Your task to perform on an android device: set the timer Image 0: 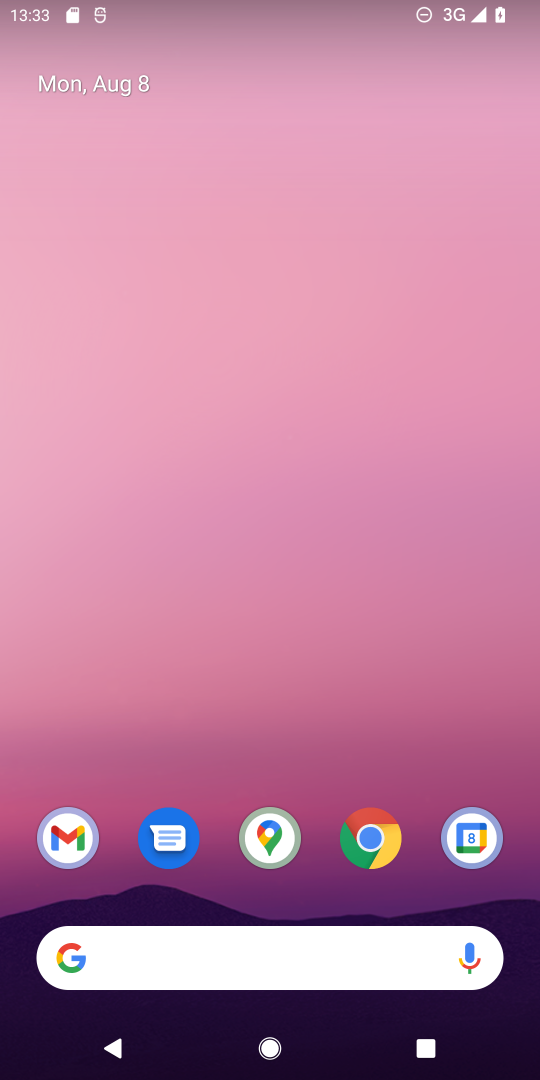
Step 0: press home button
Your task to perform on an android device: set the timer Image 1: 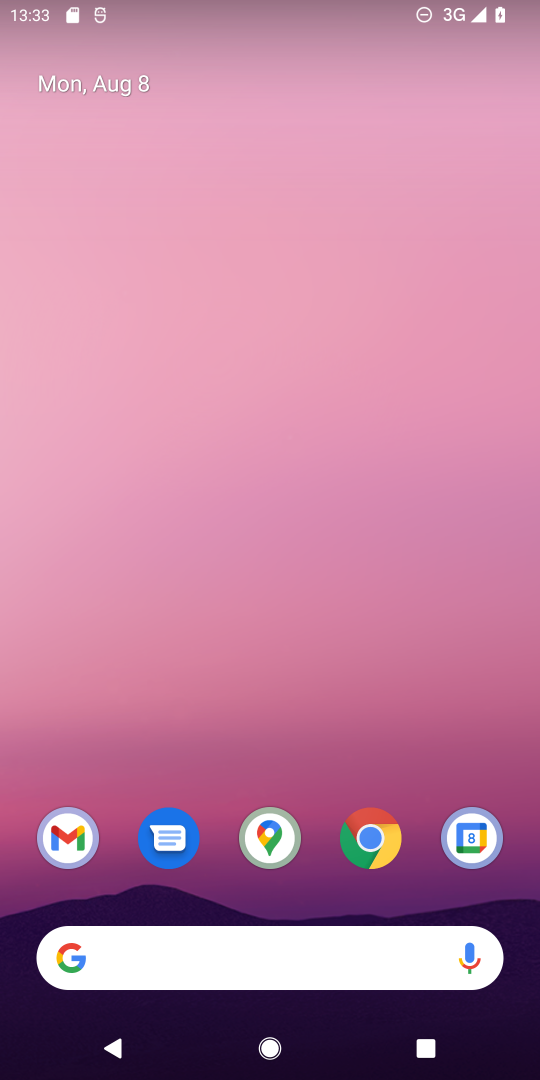
Step 1: drag from (311, 863) to (343, 236)
Your task to perform on an android device: set the timer Image 2: 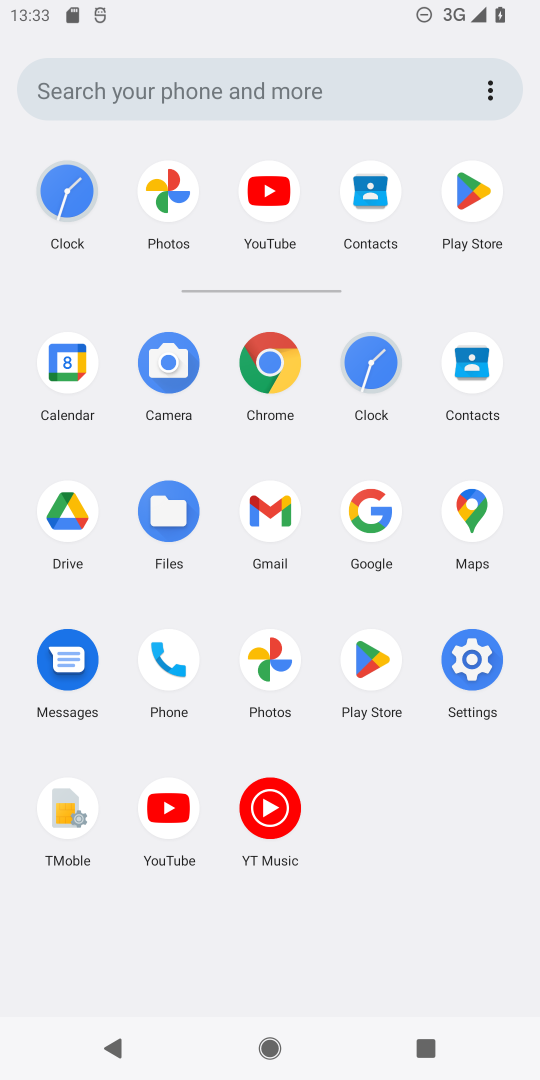
Step 2: click (59, 185)
Your task to perform on an android device: set the timer Image 3: 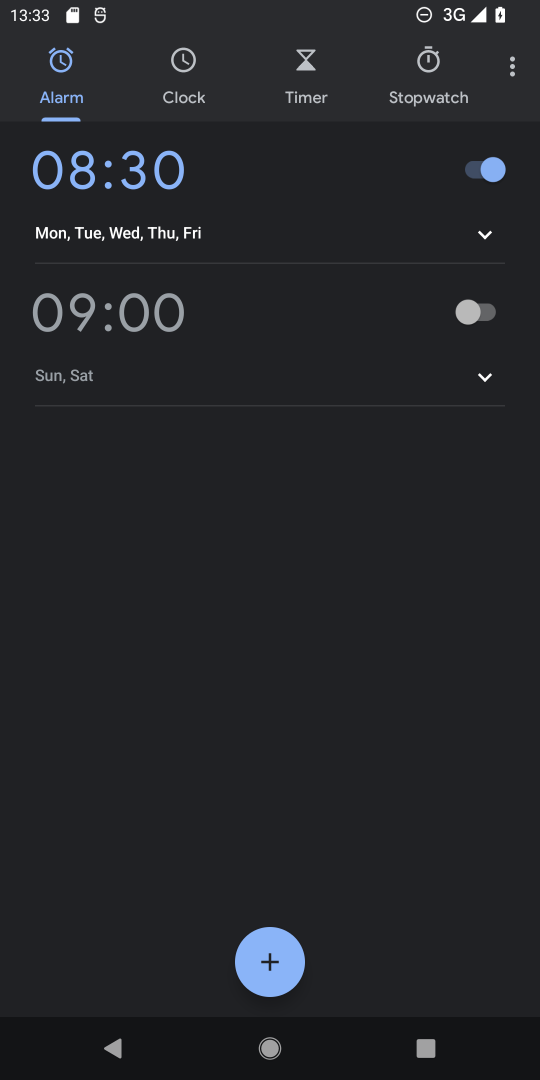
Step 3: click (297, 66)
Your task to perform on an android device: set the timer Image 4: 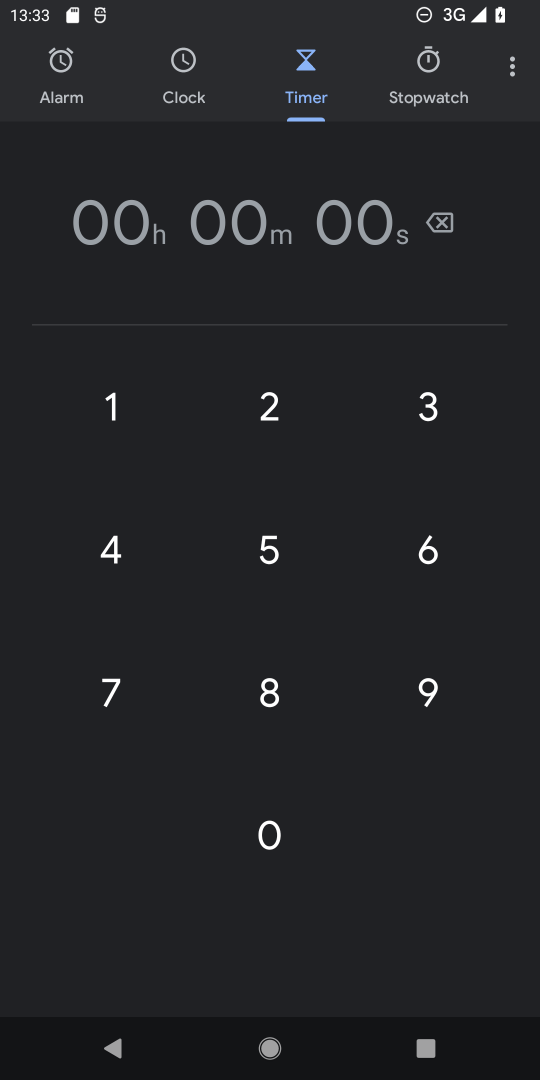
Step 4: click (115, 392)
Your task to perform on an android device: set the timer Image 5: 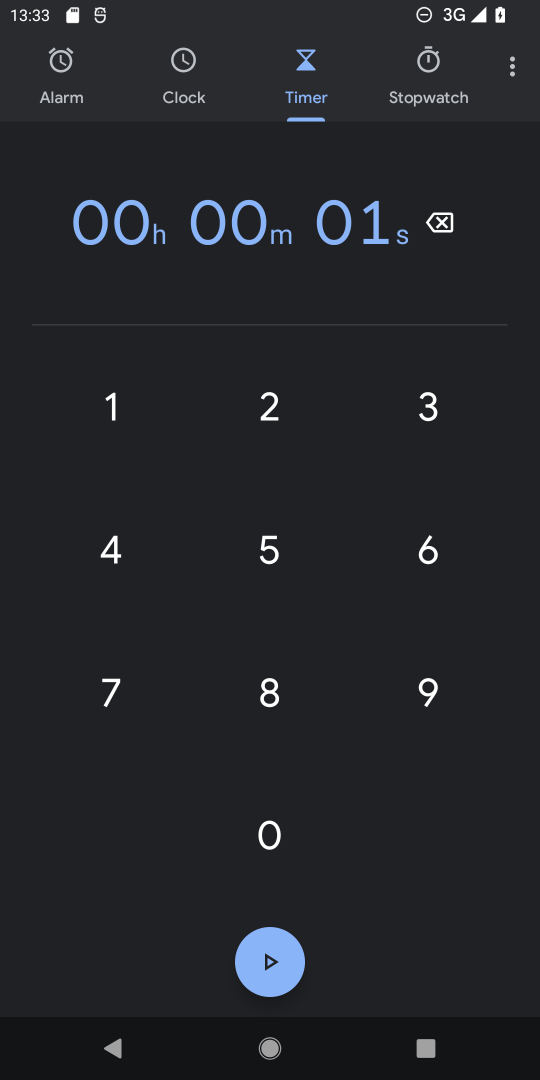
Step 5: click (271, 395)
Your task to perform on an android device: set the timer Image 6: 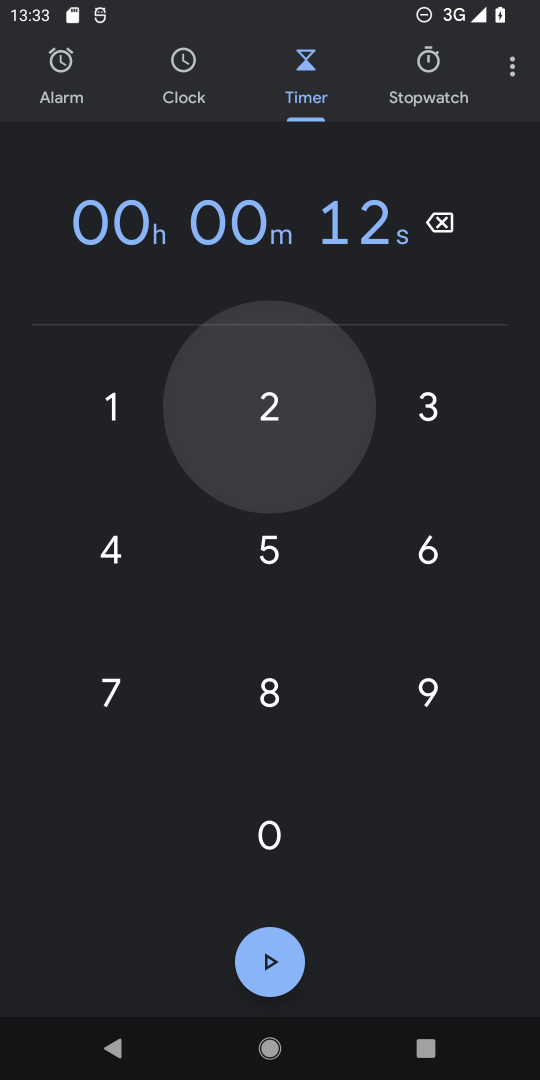
Step 6: click (109, 547)
Your task to perform on an android device: set the timer Image 7: 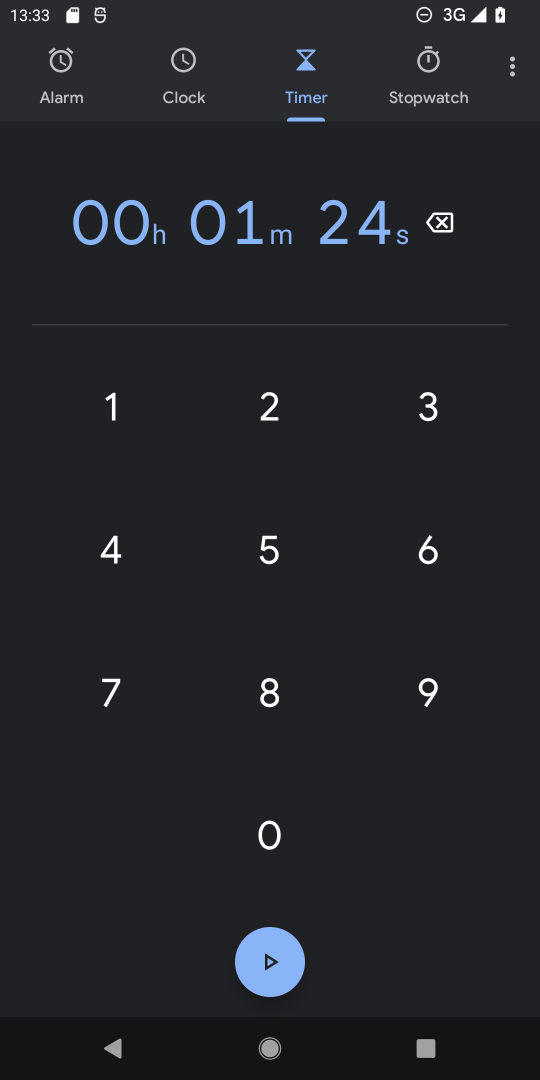
Step 7: click (441, 418)
Your task to perform on an android device: set the timer Image 8: 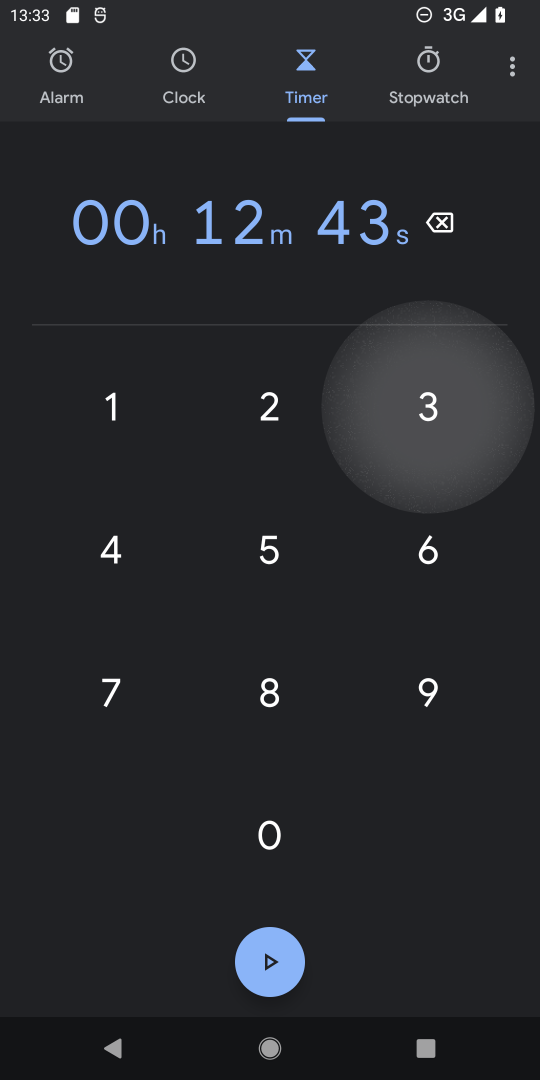
Step 8: click (268, 547)
Your task to perform on an android device: set the timer Image 9: 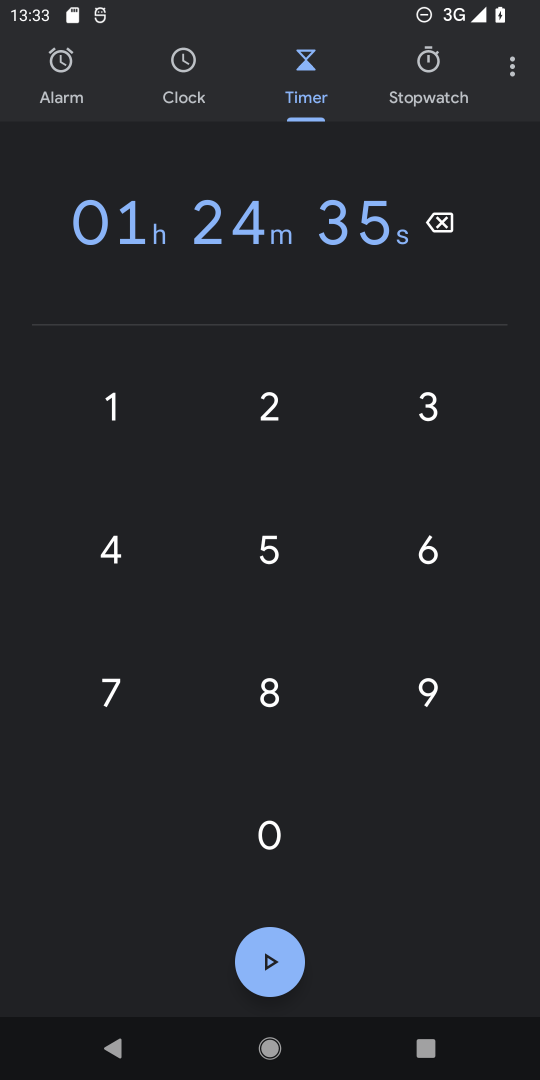
Step 9: click (273, 556)
Your task to perform on an android device: set the timer Image 10: 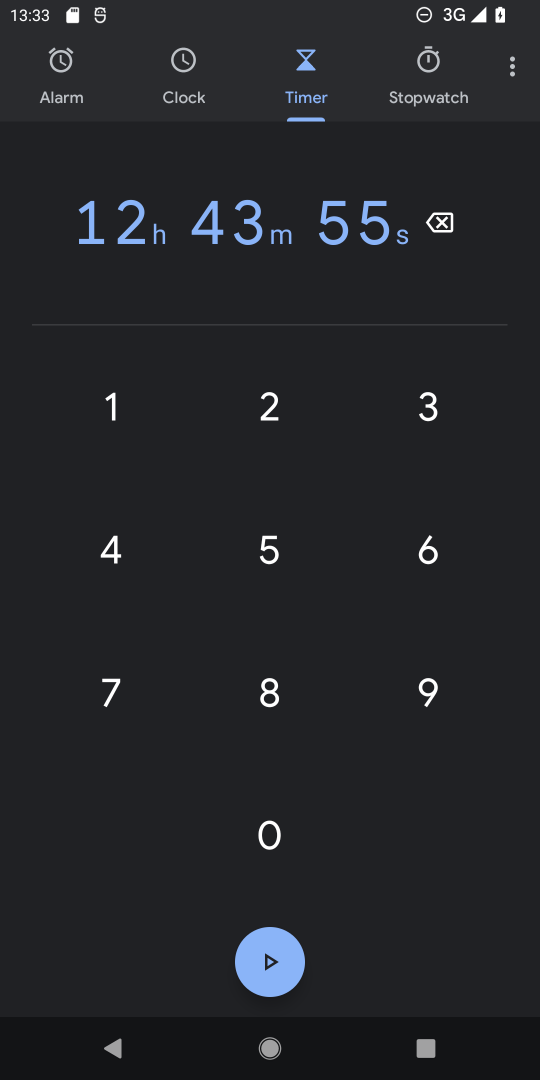
Step 10: click (271, 956)
Your task to perform on an android device: set the timer Image 11: 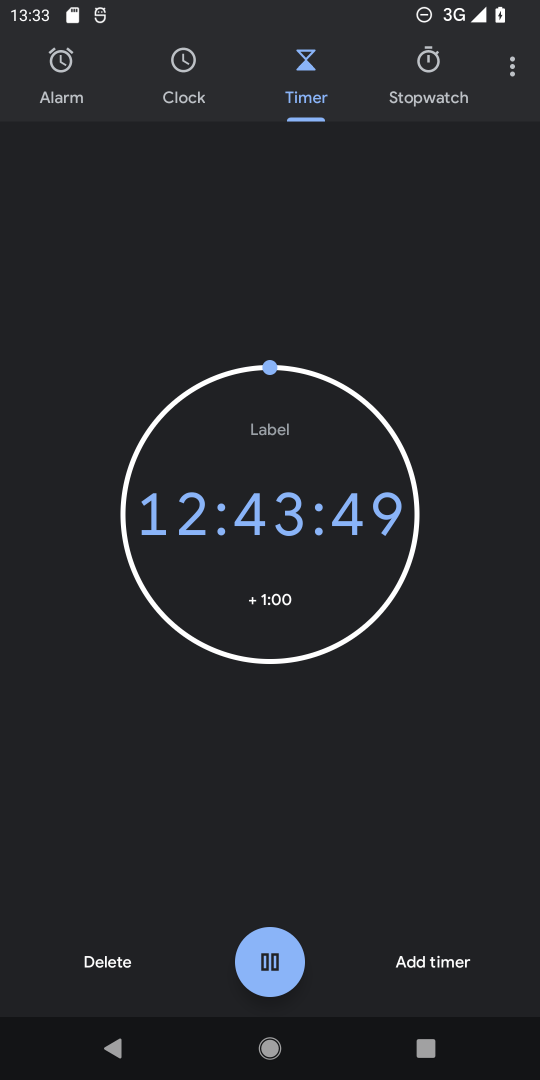
Step 11: task complete